Your task to perform on an android device: set the timer Image 0: 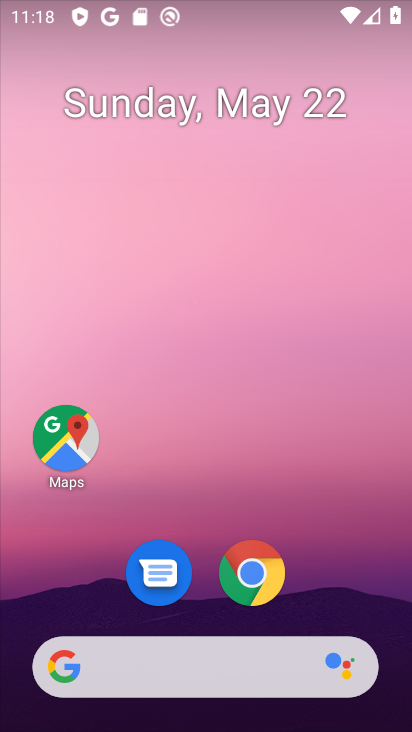
Step 0: press home button
Your task to perform on an android device: set the timer Image 1: 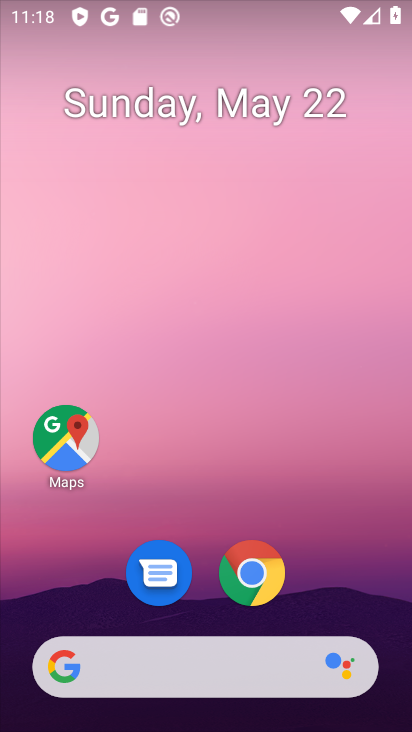
Step 1: drag from (244, 590) to (347, 125)
Your task to perform on an android device: set the timer Image 2: 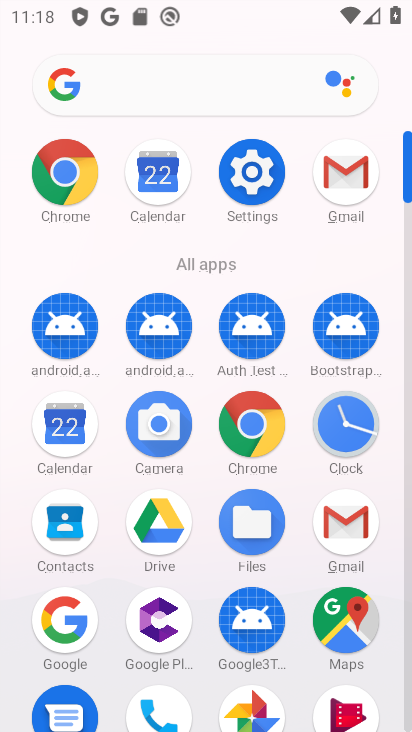
Step 2: click (347, 436)
Your task to perform on an android device: set the timer Image 3: 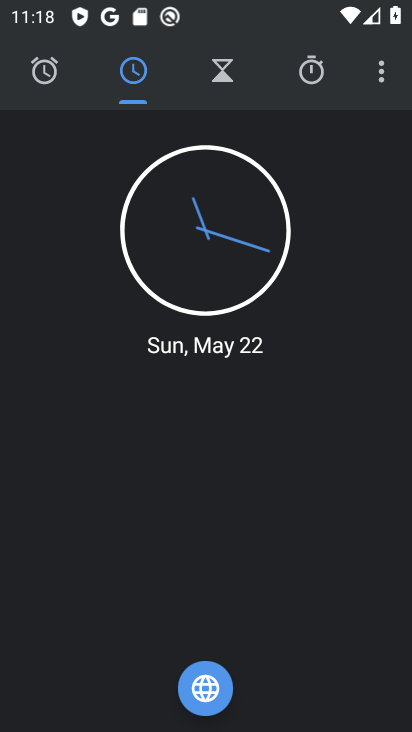
Step 3: click (223, 82)
Your task to perform on an android device: set the timer Image 4: 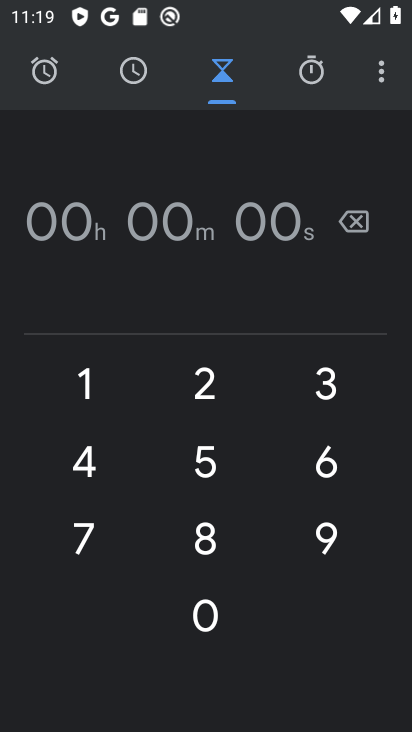
Step 4: click (203, 386)
Your task to perform on an android device: set the timer Image 5: 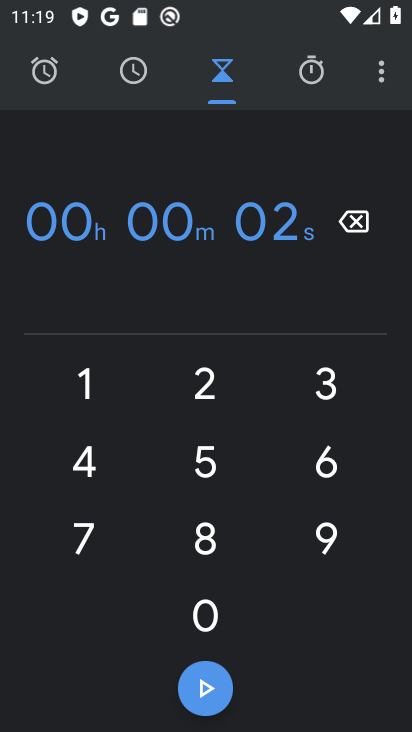
Step 5: click (198, 535)
Your task to perform on an android device: set the timer Image 6: 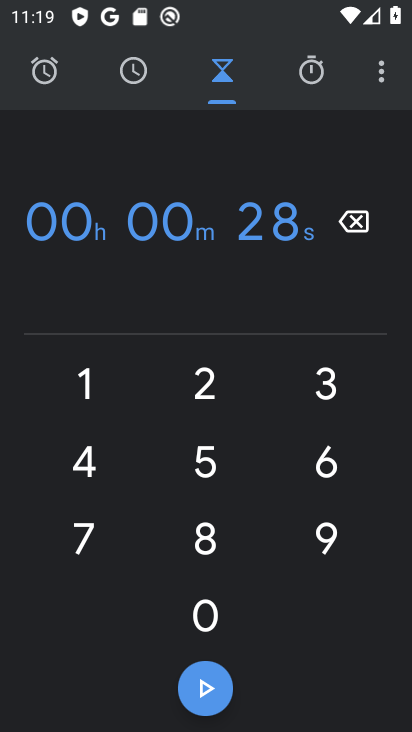
Step 6: click (204, 704)
Your task to perform on an android device: set the timer Image 7: 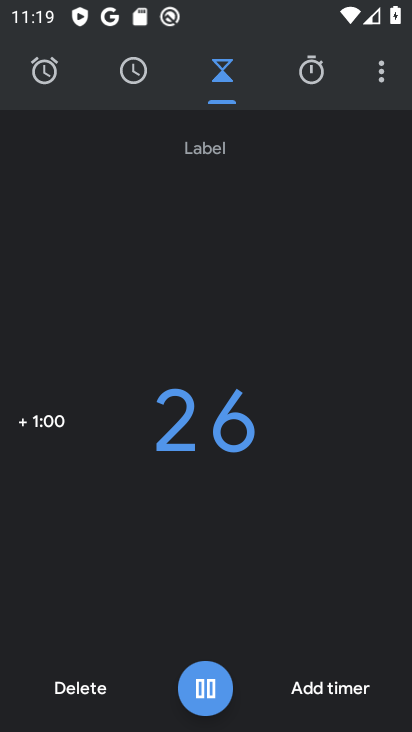
Step 7: click (208, 687)
Your task to perform on an android device: set the timer Image 8: 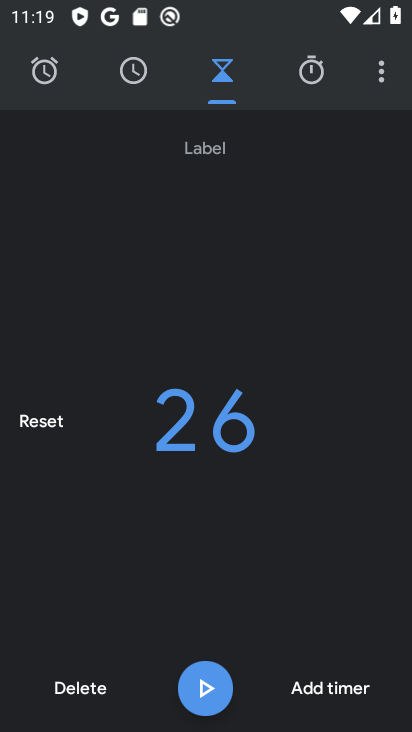
Step 8: task complete